Your task to perform on an android device: turn on bluetooth scan Image 0: 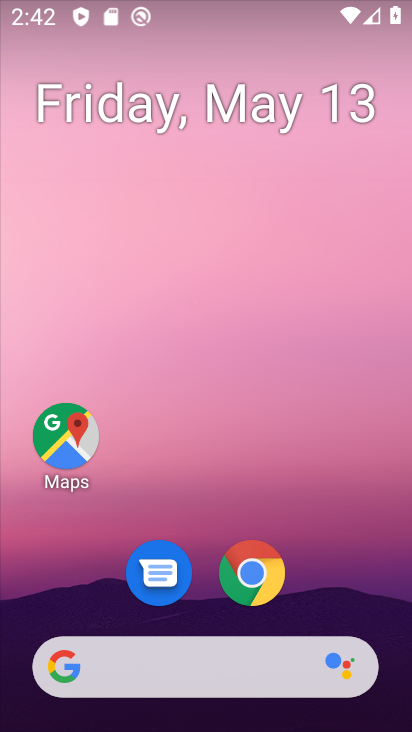
Step 0: drag from (91, 617) to (250, 116)
Your task to perform on an android device: turn on bluetooth scan Image 1: 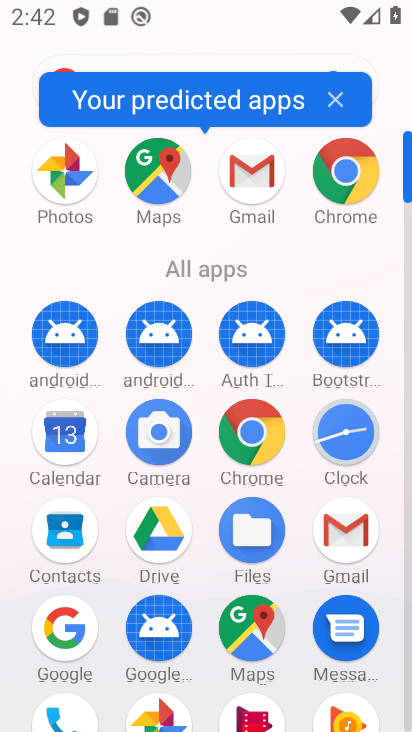
Step 1: drag from (205, 610) to (315, 358)
Your task to perform on an android device: turn on bluetooth scan Image 2: 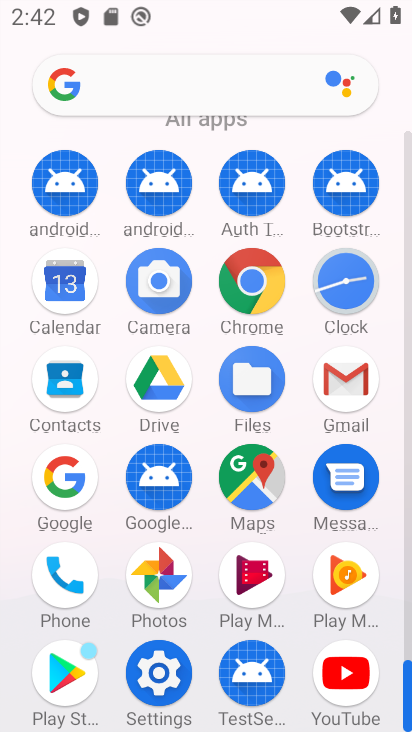
Step 2: click (161, 686)
Your task to perform on an android device: turn on bluetooth scan Image 3: 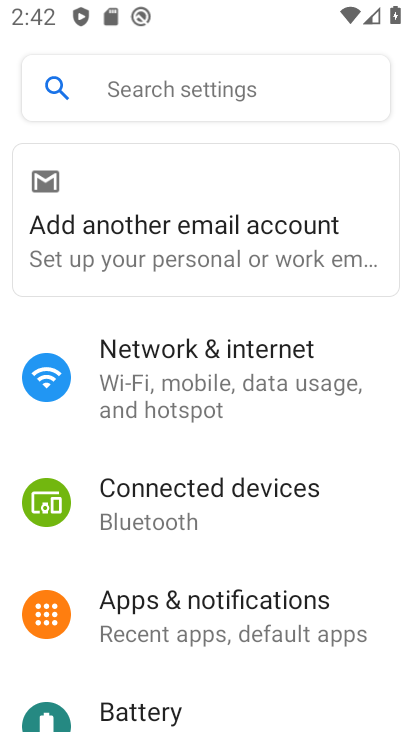
Step 3: click (211, 526)
Your task to perform on an android device: turn on bluetooth scan Image 4: 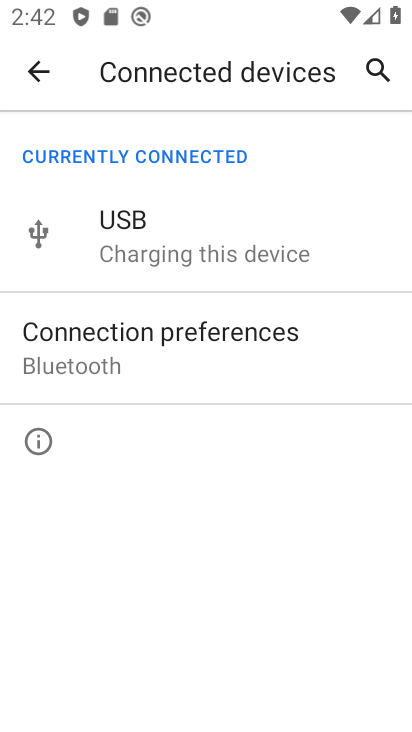
Step 4: click (211, 363)
Your task to perform on an android device: turn on bluetooth scan Image 5: 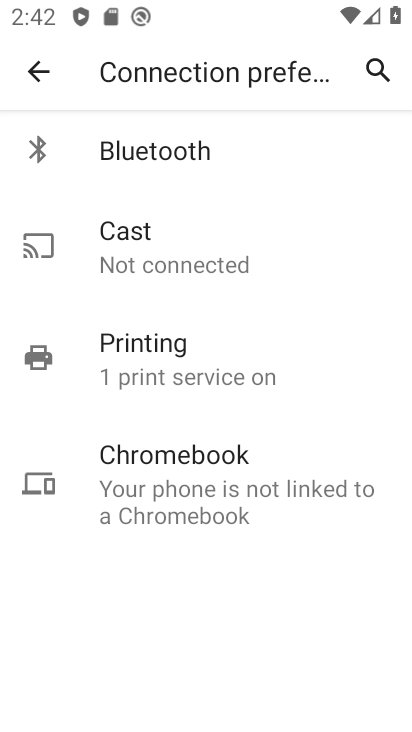
Step 5: click (237, 154)
Your task to perform on an android device: turn on bluetooth scan Image 6: 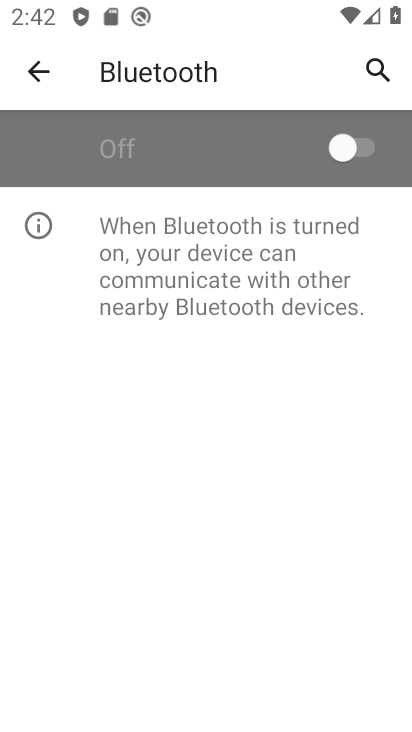
Step 6: click (378, 140)
Your task to perform on an android device: turn on bluetooth scan Image 7: 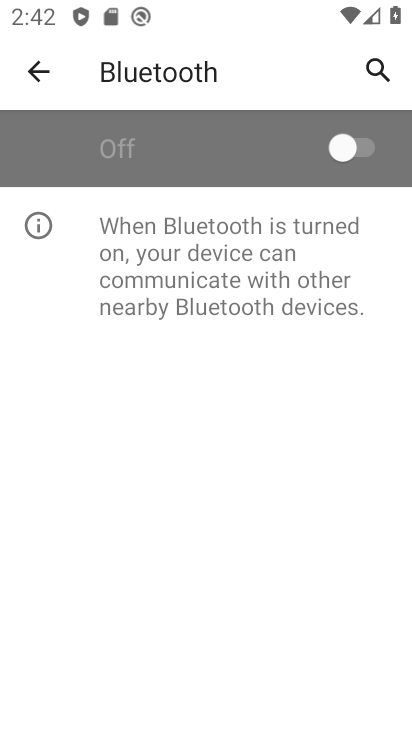
Step 7: task complete